Your task to perform on an android device: move an email to a new category in the gmail app Image 0: 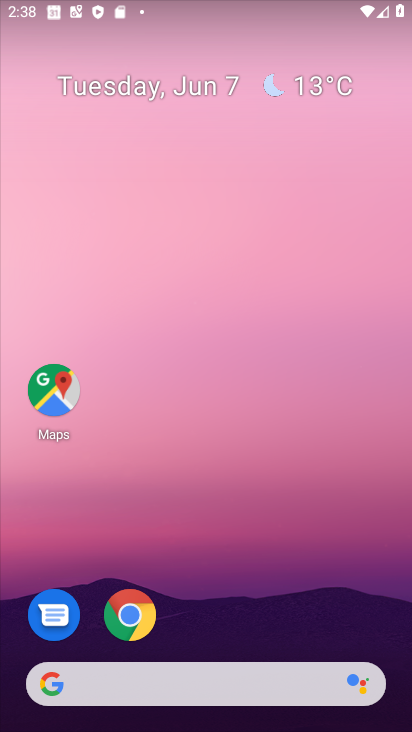
Step 0: drag from (207, 657) to (282, 175)
Your task to perform on an android device: move an email to a new category in the gmail app Image 1: 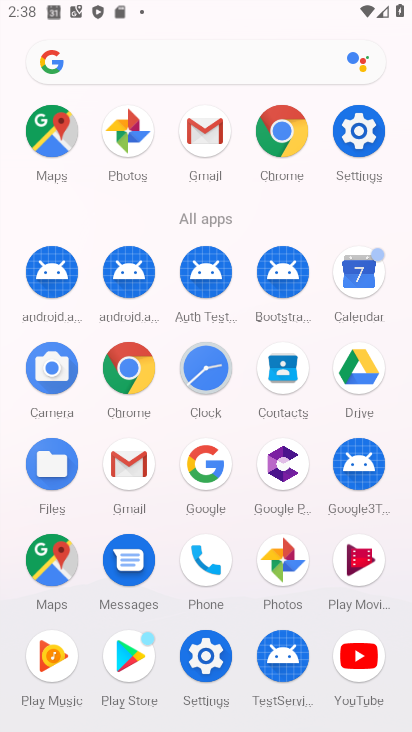
Step 1: click (131, 458)
Your task to perform on an android device: move an email to a new category in the gmail app Image 2: 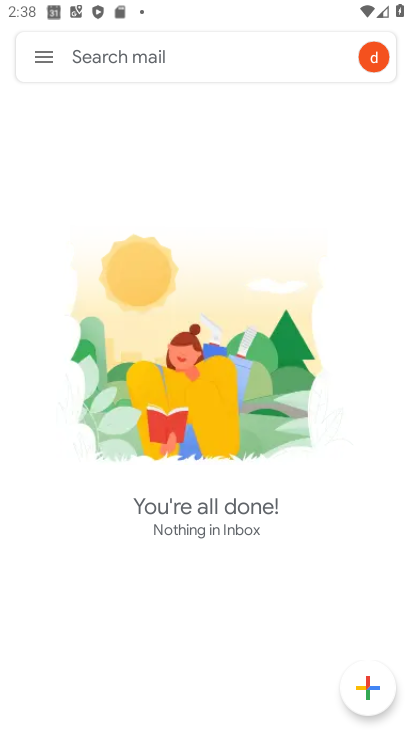
Step 2: click (36, 62)
Your task to perform on an android device: move an email to a new category in the gmail app Image 3: 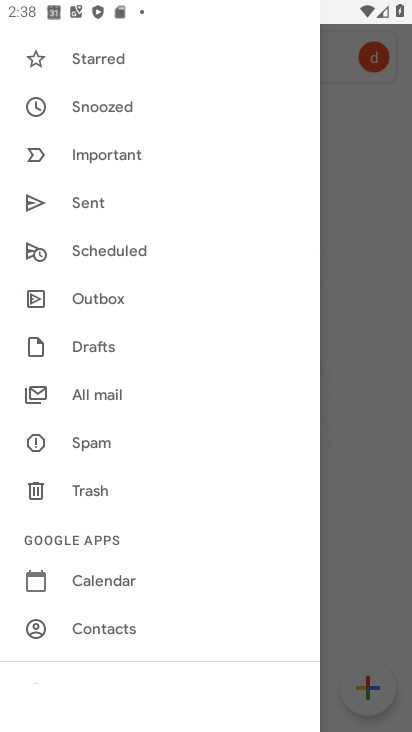
Step 3: click (121, 394)
Your task to perform on an android device: move an email to a new category in the gmail app Image 4: 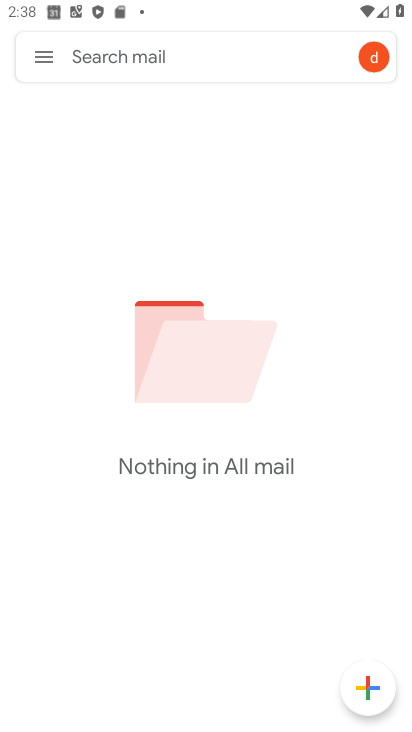
Step 4: task complete